Your task to perform on an android device: clear all cookies in the chrome app Image 0: 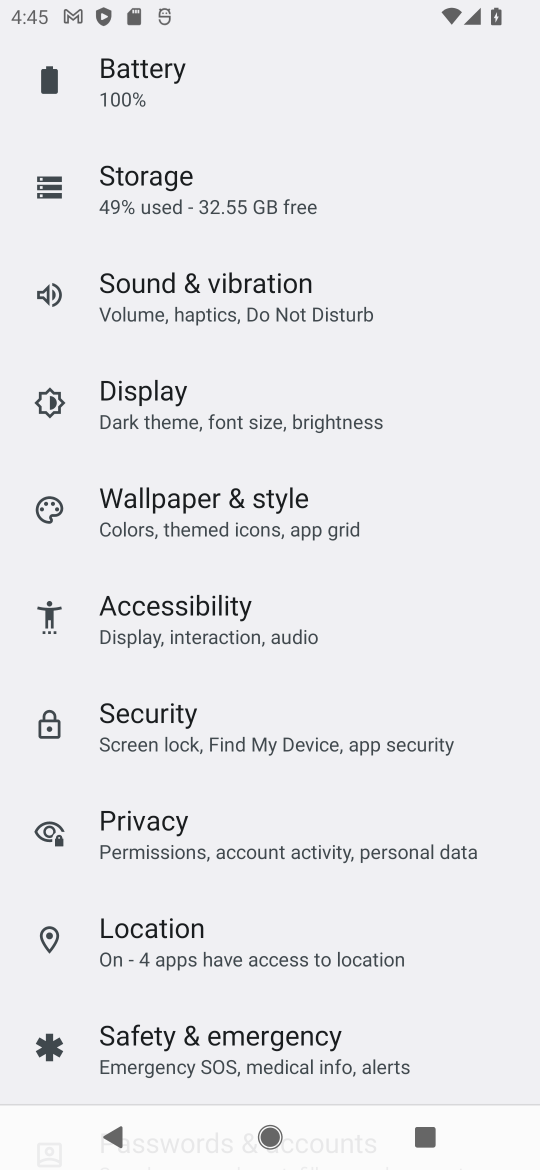
Step 0: press home button
Your task to perform on an android device: clear all cookies in the chrome app Image 1: 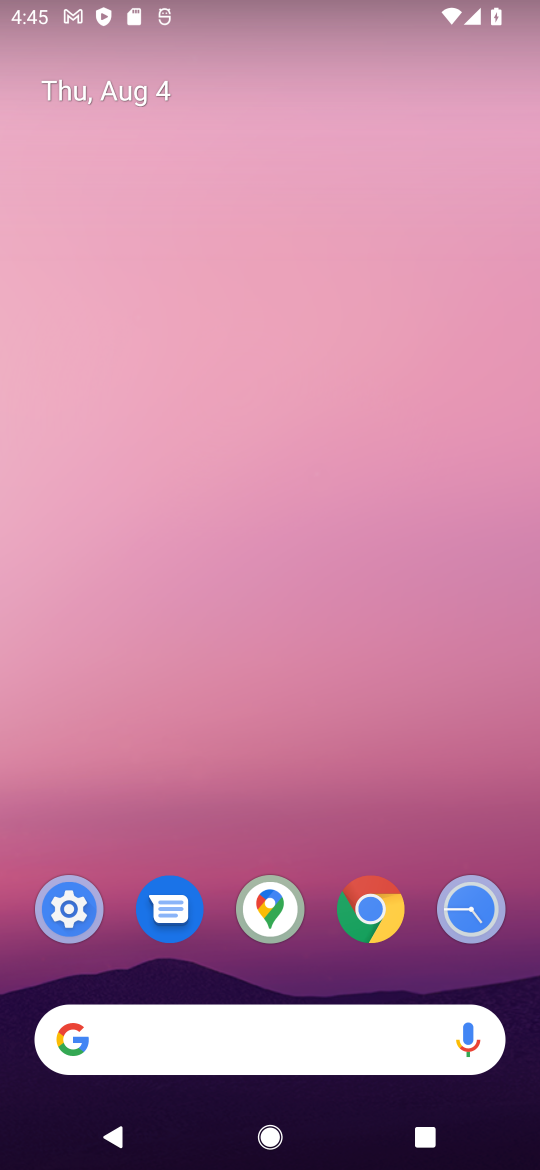
Step 1: click (365, 914)
Your task to perform on an android device: clear all cookies in the chrome app Image 2: 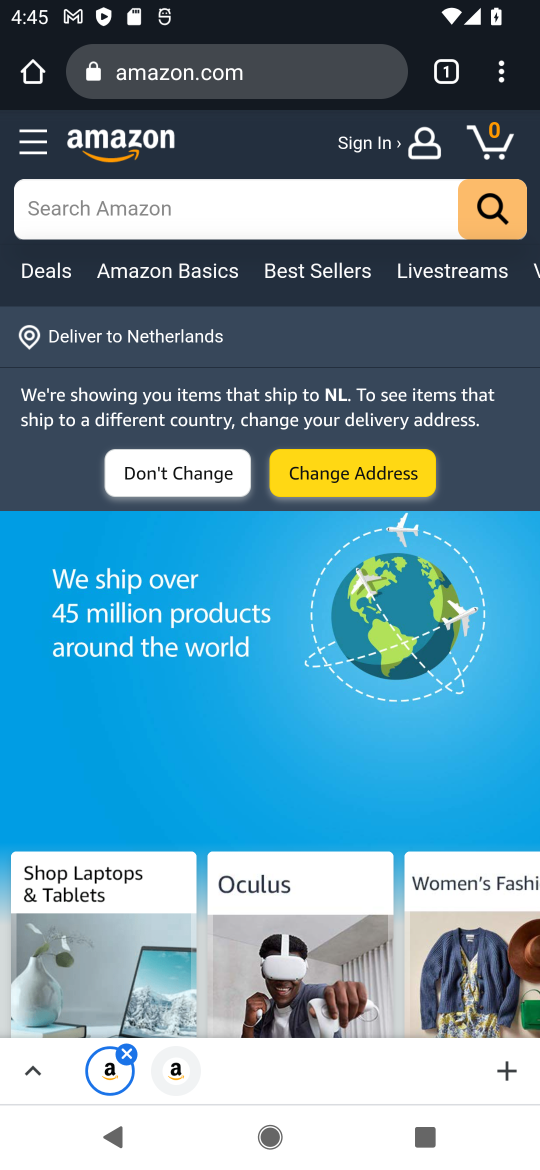
Step 2: click (499, 68)
Your task to perform on an android device: clear all cookies in the chrome app Image 3: 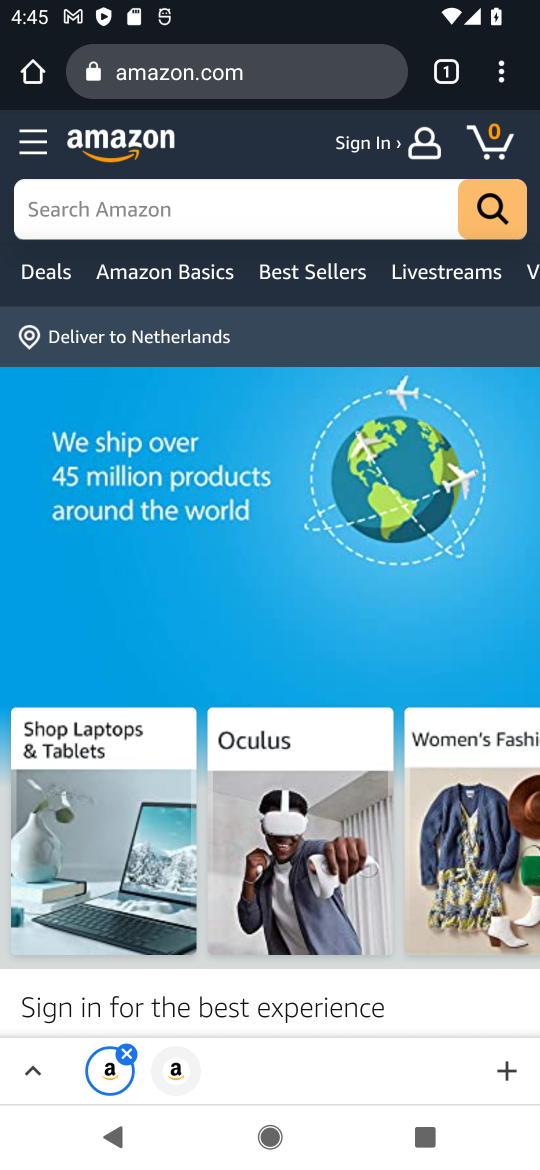
Step 3: click (504, 86)
Your task to perform on an android device: clear all cookies in the chrome app Image 4: 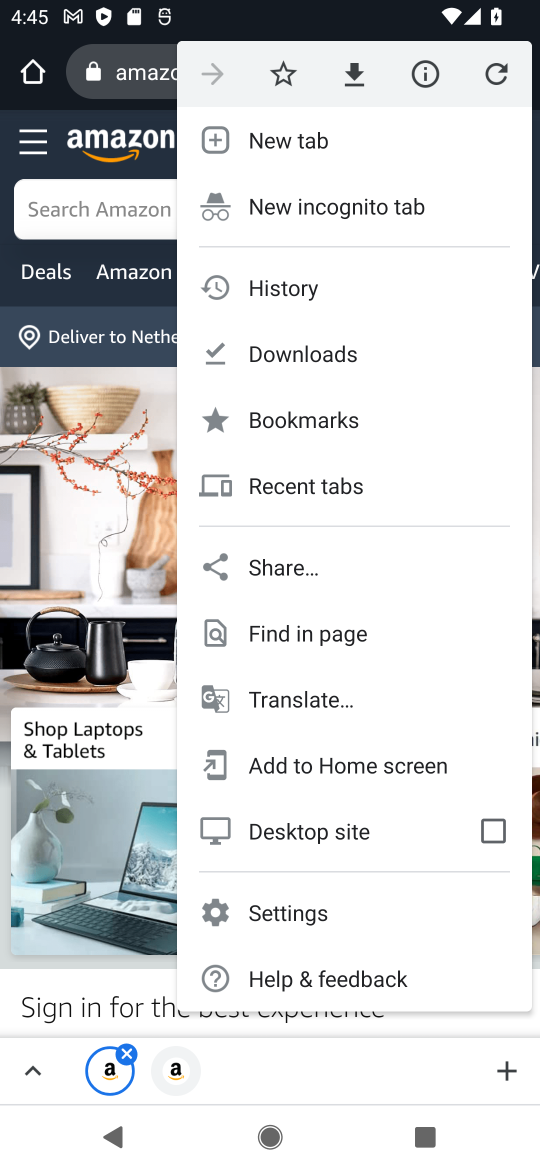
Step 4: click (291, 291)
Your task to perform on an android device: clear all cookies in the chrome app Image 5: 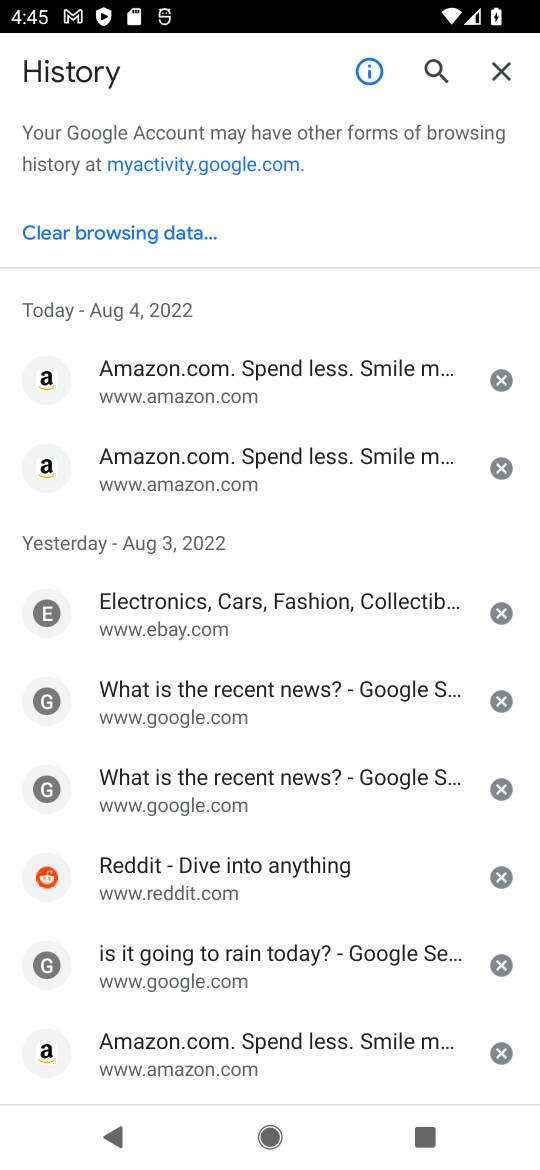
Step 5: click (147, 225)
Your task to perform on an android device: clear all cookies in the chrome app Image 6: 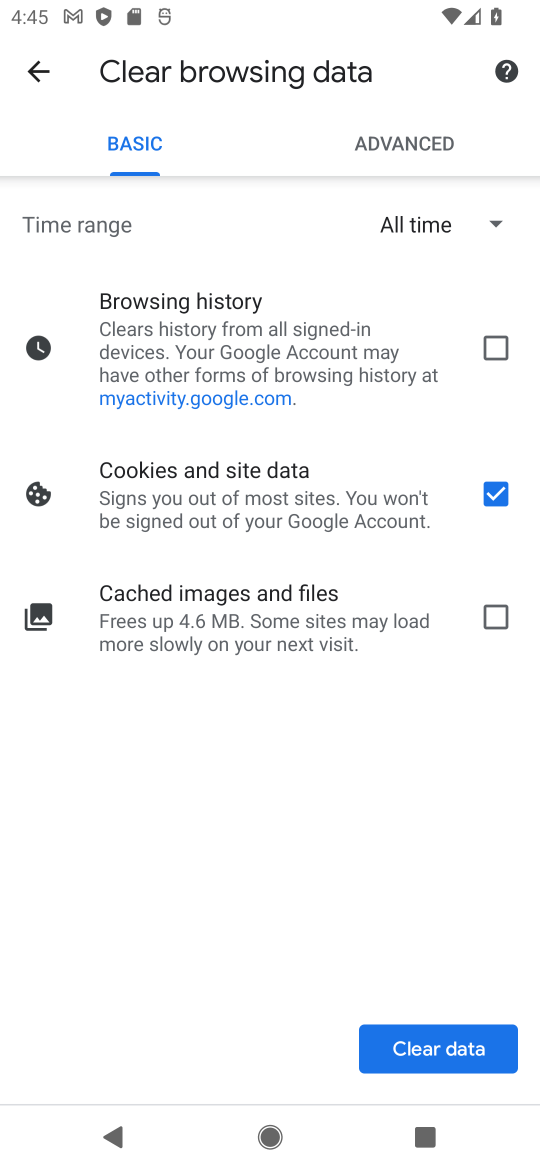
Step 6: click (420, 1038)
Your task to perform on an android device: clear all cookies in the chrome app Image 7: 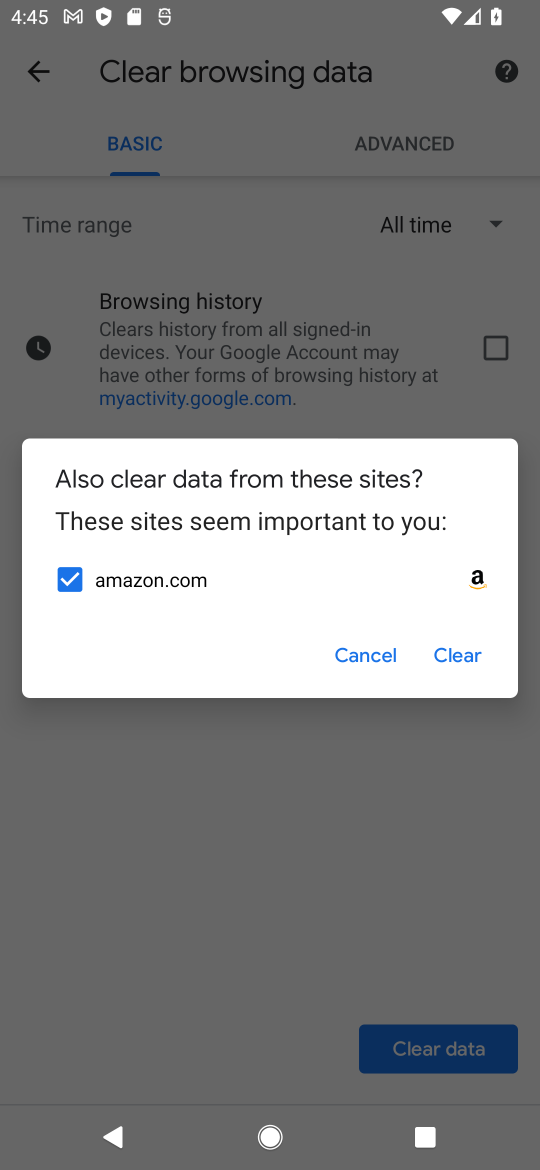
Step 7: click (462, 660)
Your task to perform on an android device: clear all cookies in the chrome app Image 8: 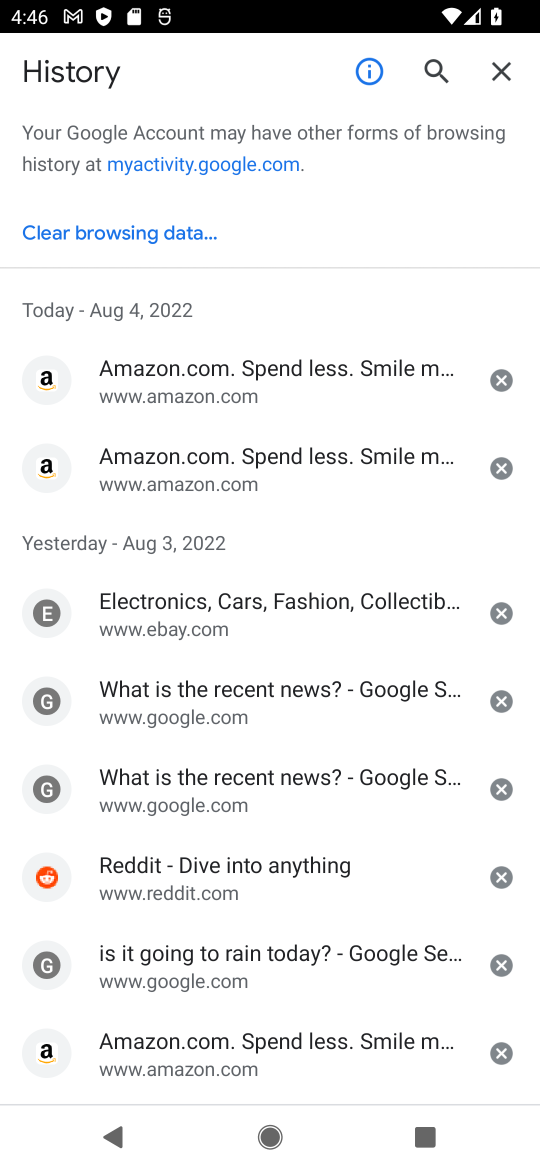
Step 8: task complete